Your task to perform on an android device: turn notification dots off Image 0: 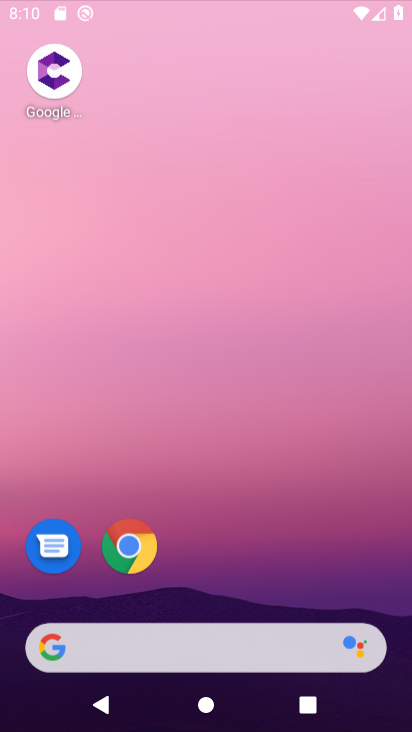
Step 0: drag from (224, 593) to (229, 12)
Your task to perform on an android device: turn notification dots off Image 1: 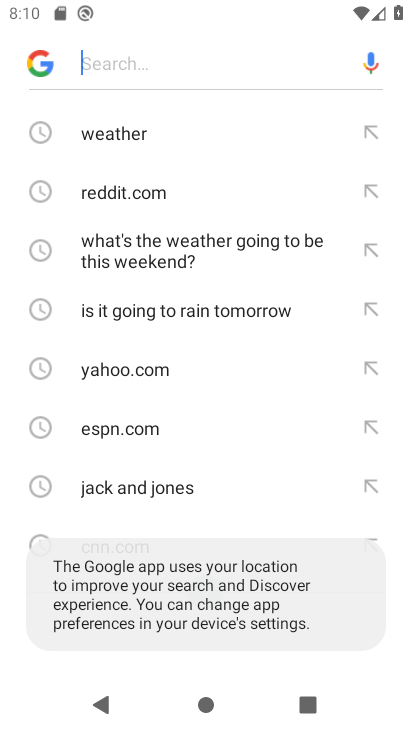
Step 1: press home button
Your task to perform on an android device: turn notification dots off Image 2: 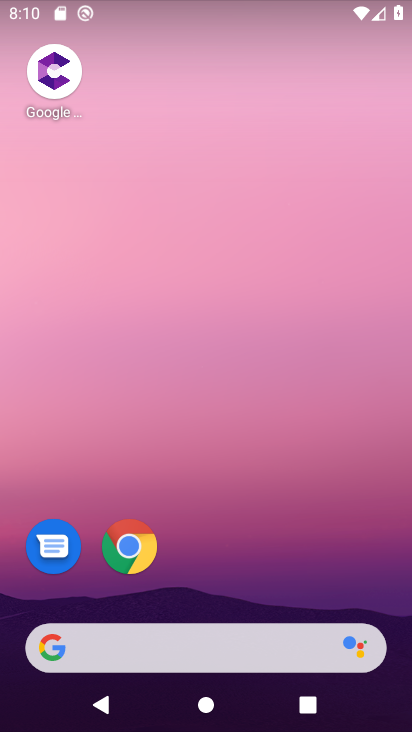
Step 2: drag from (225, 597) to (362, 17)
Your task to perform on an android device: turn notification dots off Image 3: 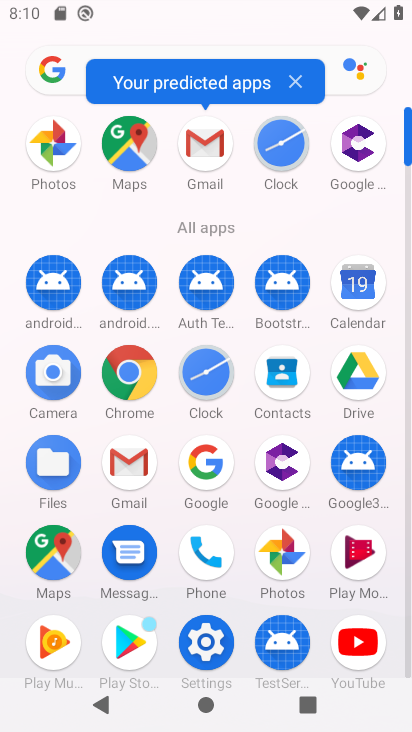
Step 3: click (198, 640)
Your task to perform on an android device: turn notification dots off Image 4: 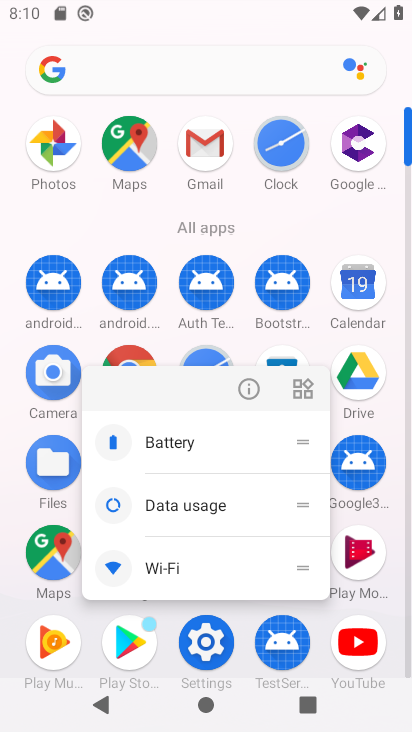
Step 4: click (201, 644)
Your task to perform on an android device: turn notification dots off Image 5: 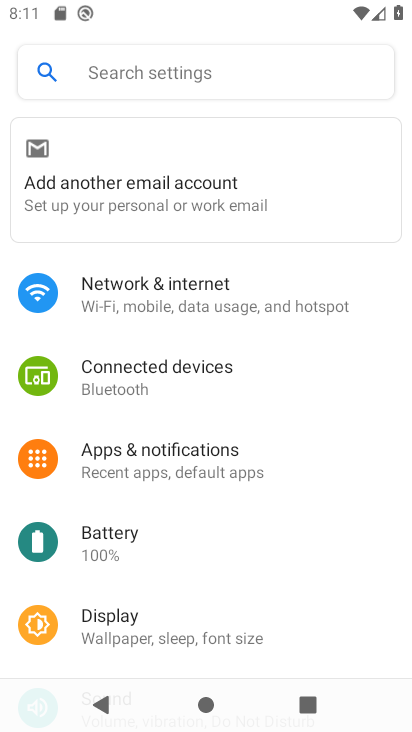
Step 5: click (166, 461)
Your task to perform on an android device: turn notification dots off Image 6: 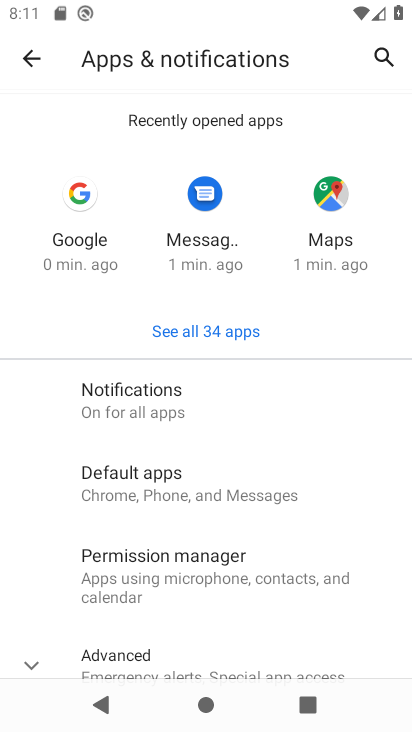
Step 6: click (140, 397)
Your task to perform on an android device: turn notification dots off Image 7: 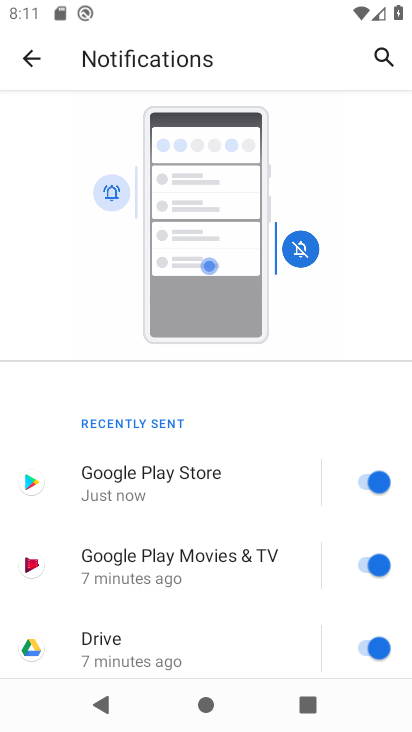
Step 7: drag from (191, 584) to (266, 218)
Your task to perform on an android device: turn notification dots off Image 8: 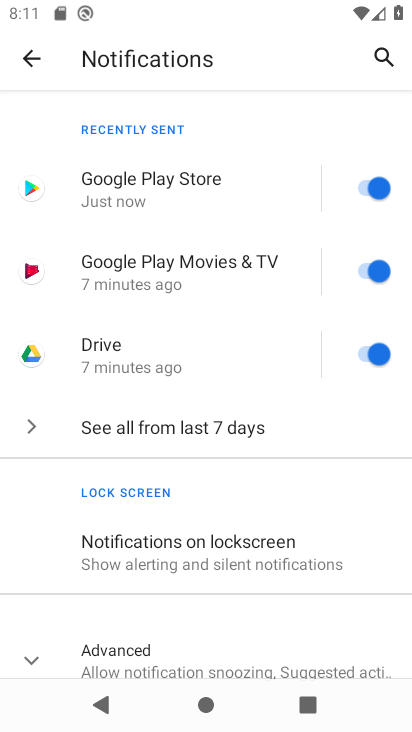
Step 8: drag from (191, 577) to (223, 412)
Your task to perform on an android device: turn notification dots off Image 9: 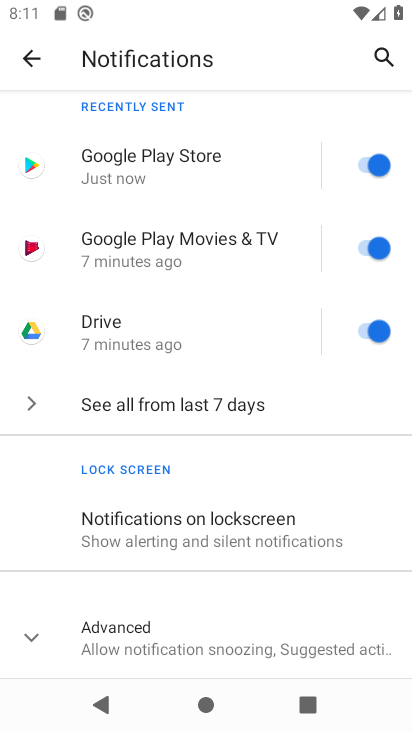
Step 9: click (152, 646)
Your task to perform on an android device: turn notification dots off Image 10: 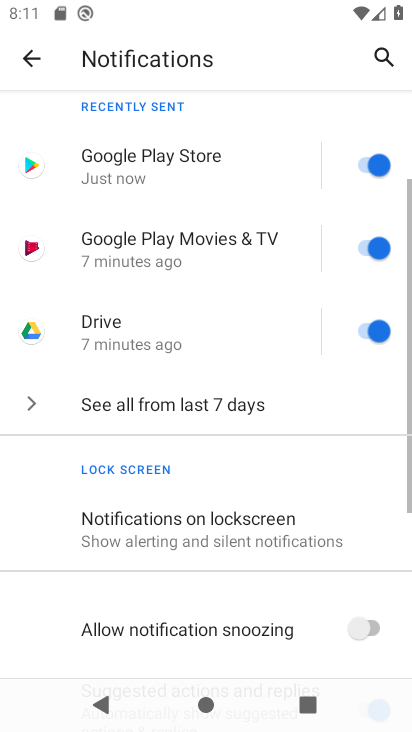
Step 10: drag from (201, 635) to (289, 272)
Your task to perform on an android device: turn notification dots off Image 11: 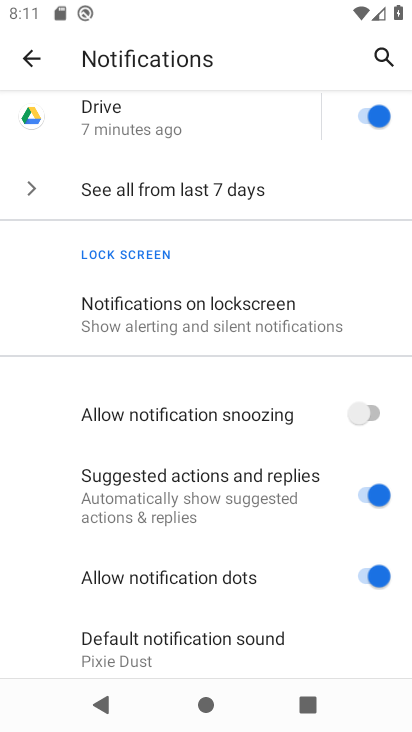
Step 11: click (360, 571)
Your task to perform on an android device: turn notification dots off Image 12: 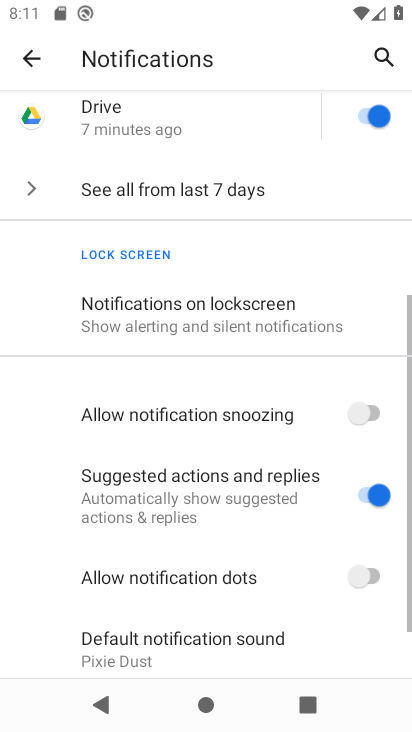
Step 12: task complete